Your task to perform on an android device: open the mobile data screen to see how much data has been used Image 0: 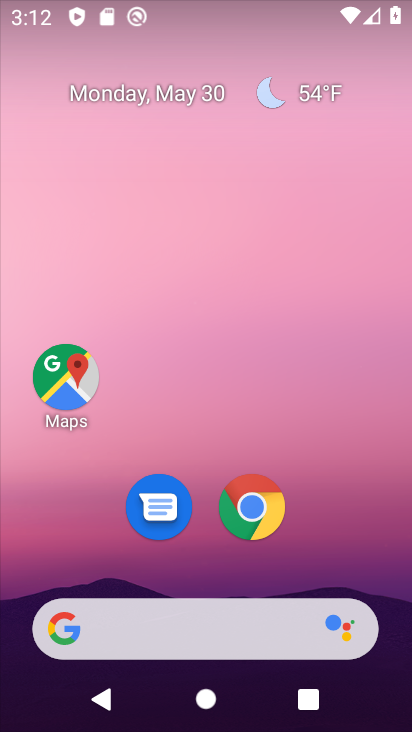
Step 0: drag from (102, 574) to (225, 38)
Your task to perform on an android device: open the mobile data screen to see how much data has been used Image 1: 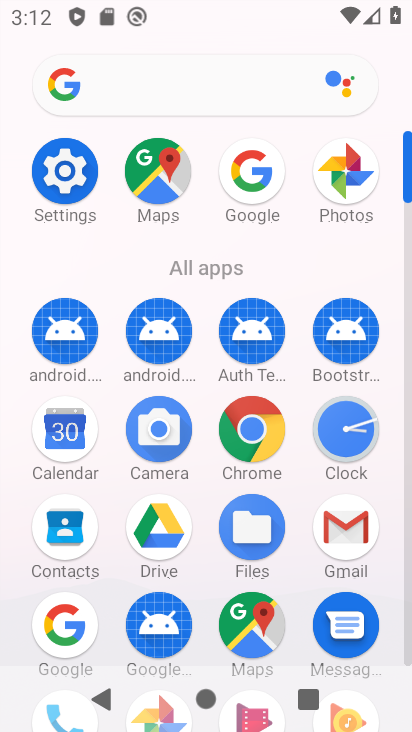
Step 1: drag from (182, 579) to (224, 315)
Your task to perform on an android device: open the mobile data screen to see how much data has been used Image 2: 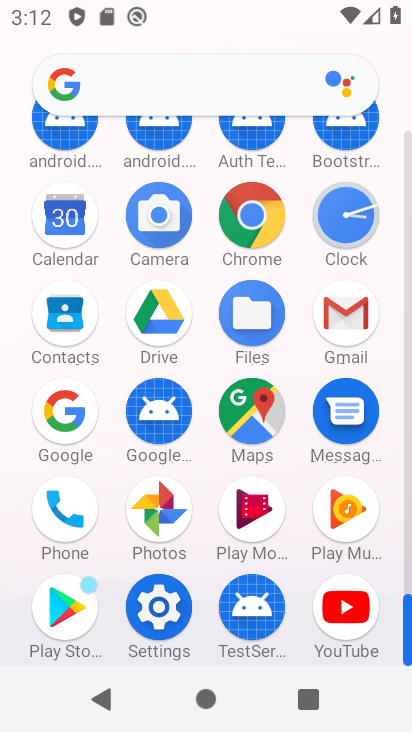
Step 2: click (165, 620)
Your task to perform on an android device: open the mobile data screen to see how much data has been used Image 3: 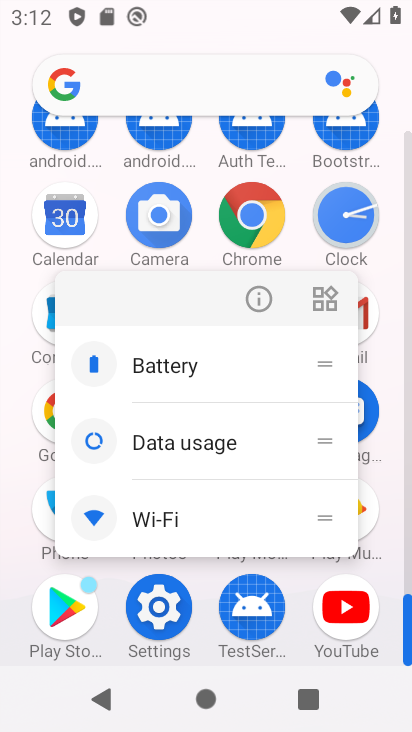
Step 3: click (167, 606)
Your task to perform on an android device: open the mobile data screen to see how much data has been used Image 4: 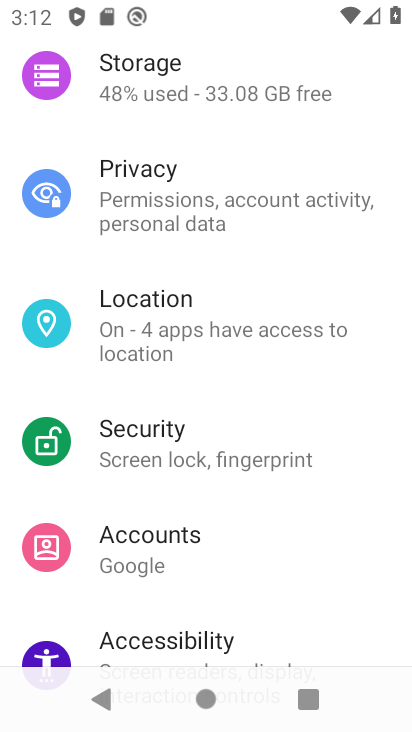
Step 4: drag from (290, 162) to (271, 661)
Your task to perform on an android device: open the mobile data screen to see how much data has been used Image 5: 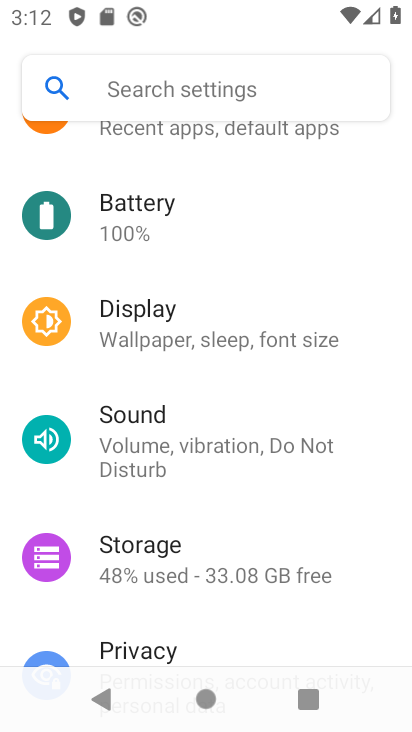
Step 5: drag from (283, 218) to (279, 647)
Your task to perform on an android device: open the mobile data screen to see how much data has been used Image 6: 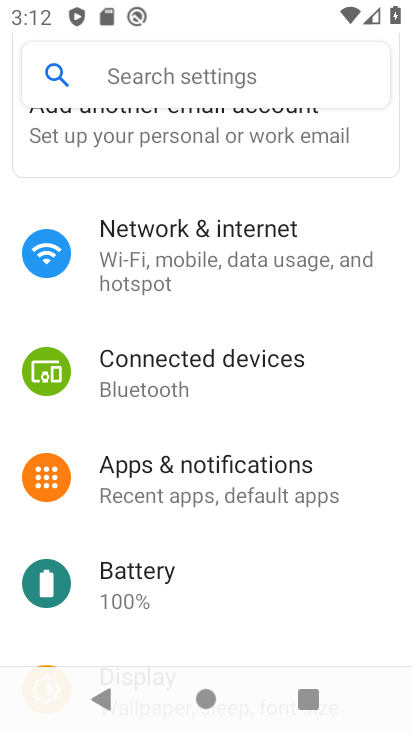
Step 6: drag from (251, 221) to (245, 410)
Your task to perform on an android device: open the mobile data screen to see how much data has been used Image 7: 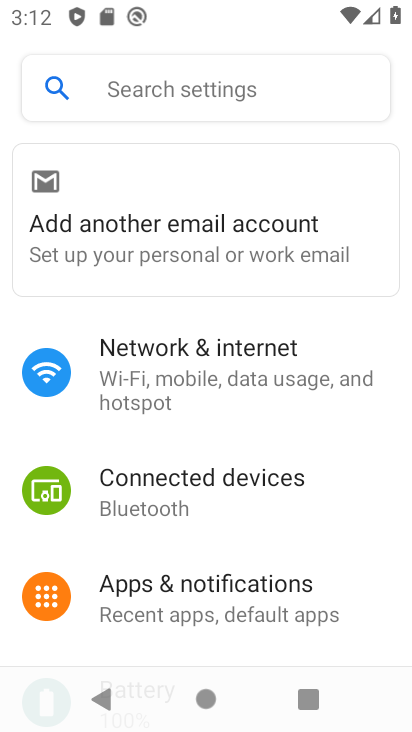
Step 7: click (257, 396)
Your task to perform on an android device: open the mobile data screen to see how much data has been used Image 8: 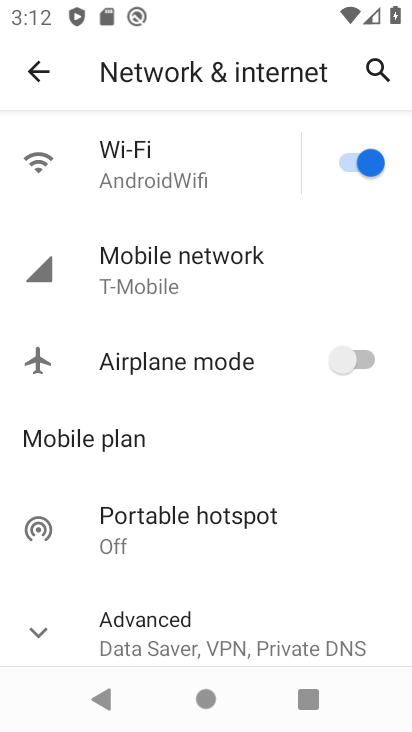
Step 8: click (241, 292)
Your task to perform on an android device: open the mobile data screen to see how much data has been used Image 9: 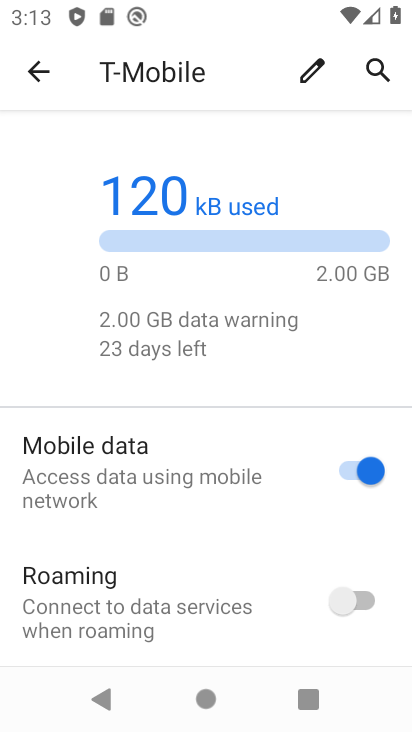
Step 9: task complete